Your task to perform on an android device: change your default location settings in chrome Image 0: 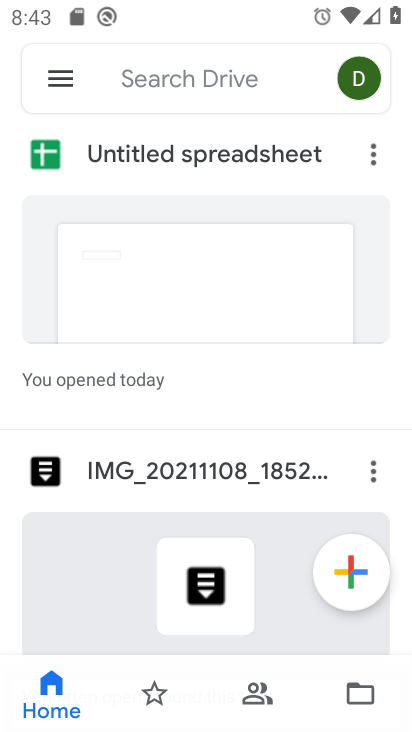
Step 0: press home button
Your task to perform on an android device: change your default location settings in chrome Image 1: 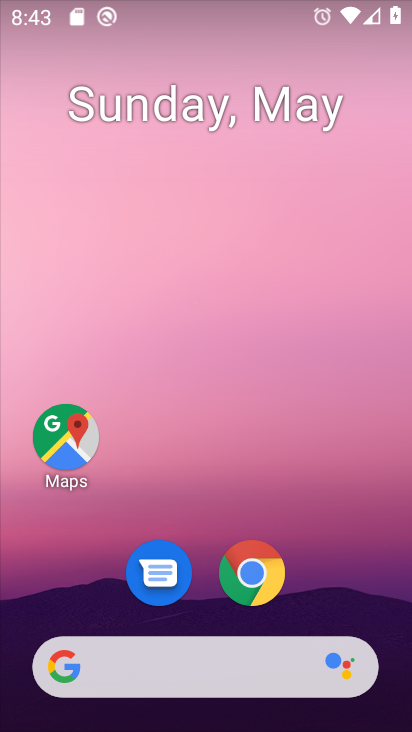
Step 1: click (257, 561)
Your task to perform on an android device: change your default location settings in chrome Image 2: 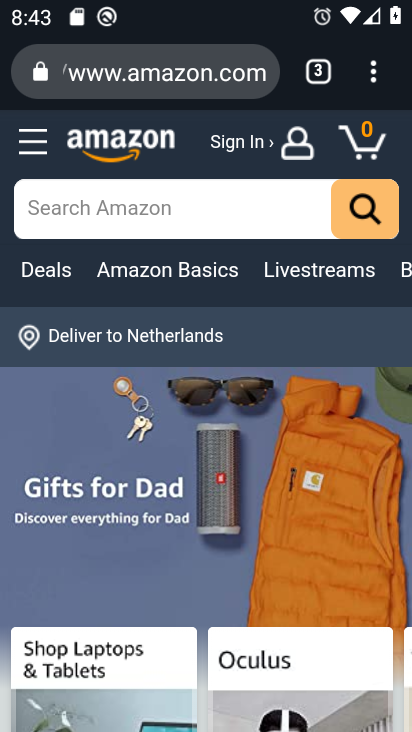
Step 2: click (373, 80)
Your task to perform on an android device: change your default location settings in chrome Image 3: 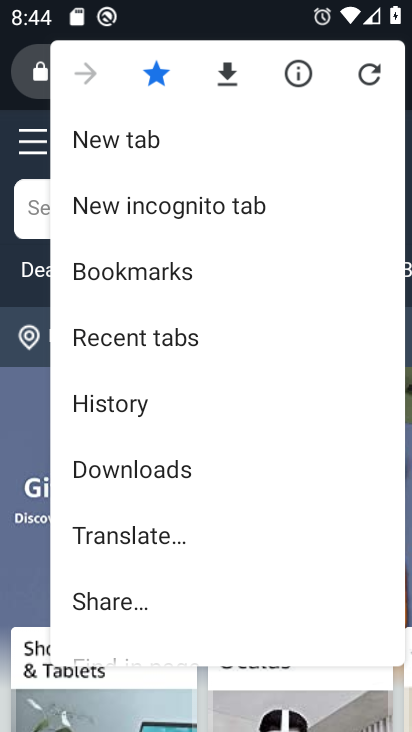
Step 3: drag from (224, 514) to (212, 222)
Your task to perform on an android device: change your default location settings in chrome Image 4: 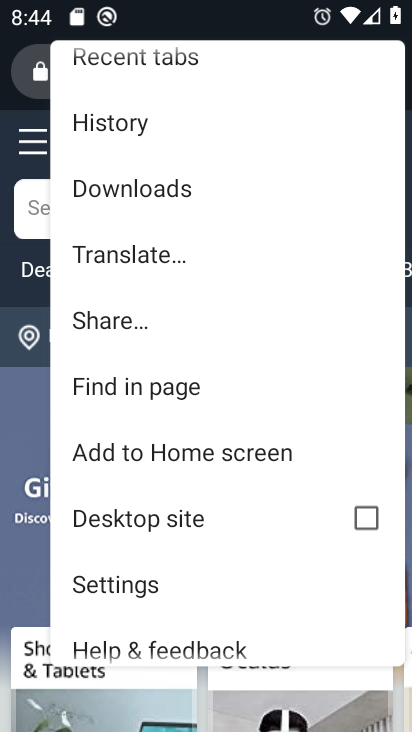
Step 4: click (168, 586)
Your task to perform on an android device: change your default location settings in chrome Image 5: 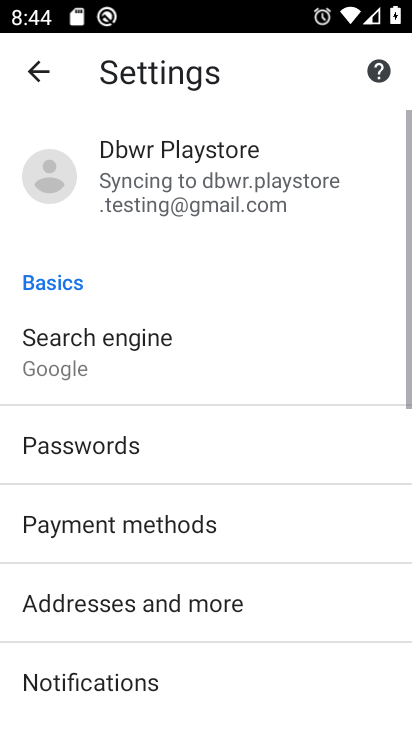
Step 5: drag from (245, 592) to (250, 105)
Your task to perform on an android device: change your default location settings in chrome Image 6: 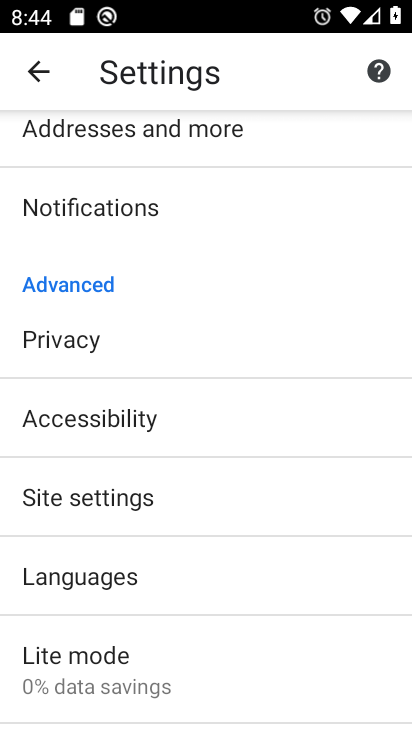
Step 6: click (167, 493)
Your task to perform on an android device: change your default location settings in chrome Image 7: 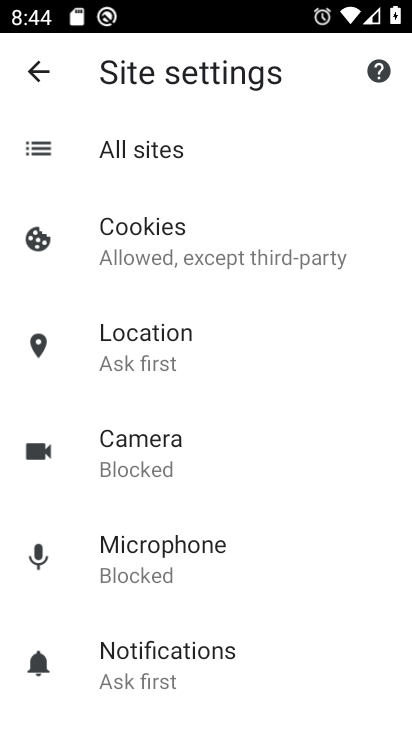
Step 7: click (193, 360)
Your task to perform on an android device: change your default location settings in chrome Image 8: 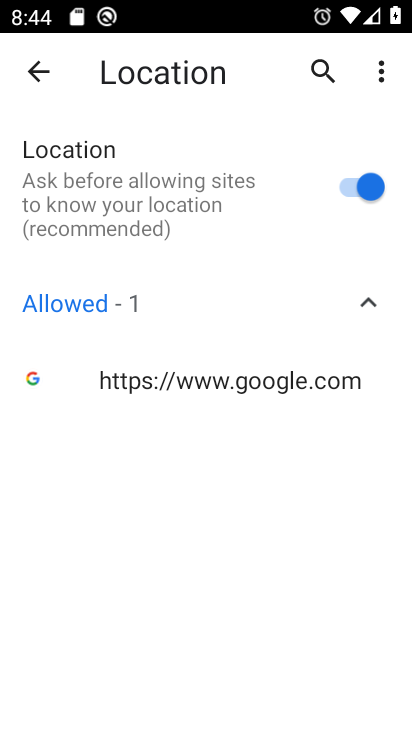
Step 8: click (361, 168)
Your task to perform on an android device: change your default location settings in chrome Image 9: 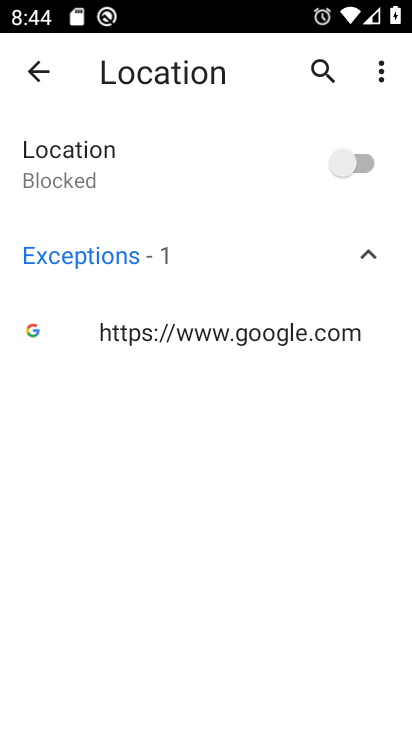
Step 9: task complete